Your task to perform on an android device: Open CNN.com Image 0: 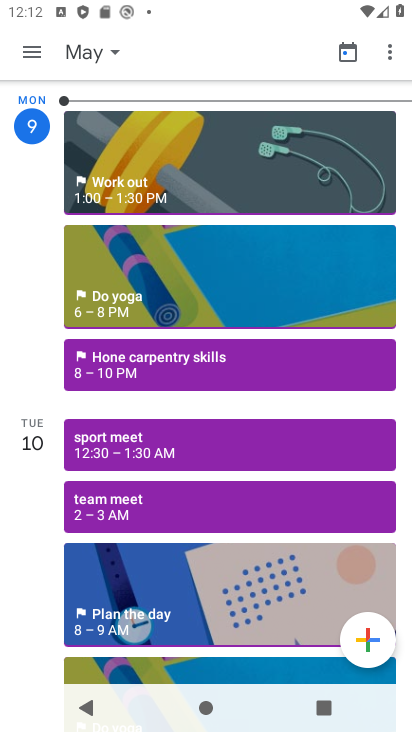
Step 0: press home button
Your task to perform on an android device: Open CNN.com Image 1: 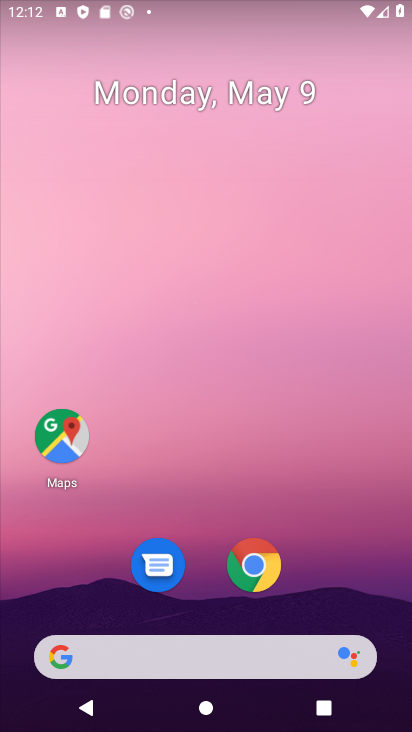
Step 1: drag from (241, 627) to (223, 173)
Your task to perform on an android device: Open CNN.com Image 2: 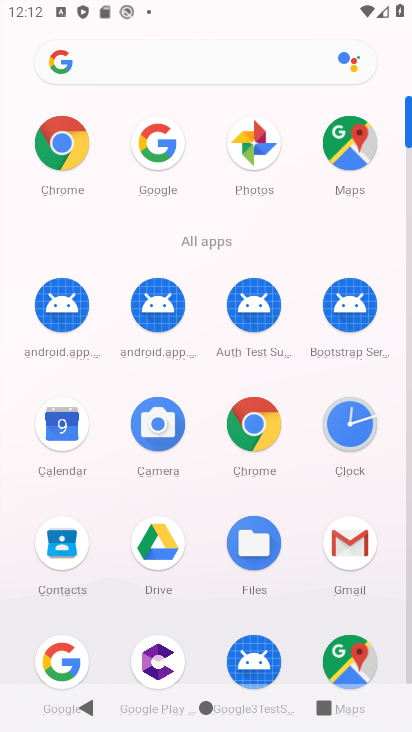
Step 2: click (258, 433)
Your task to perform on an android device: Open CNN.com Image 3: 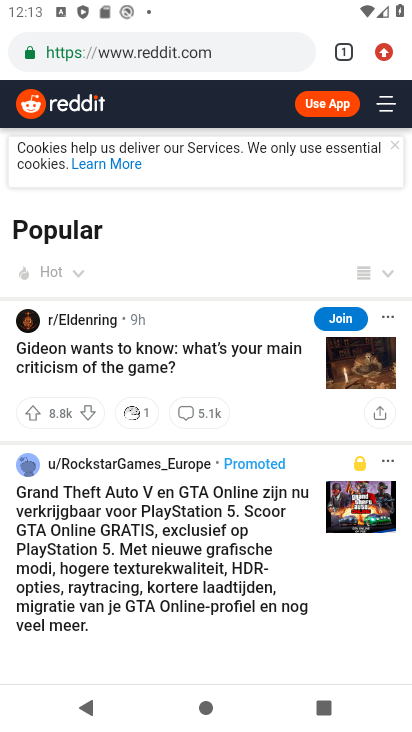
Step 3: click (216, 60)
Your task to perform on an android device: Open CNN.com Image 4: 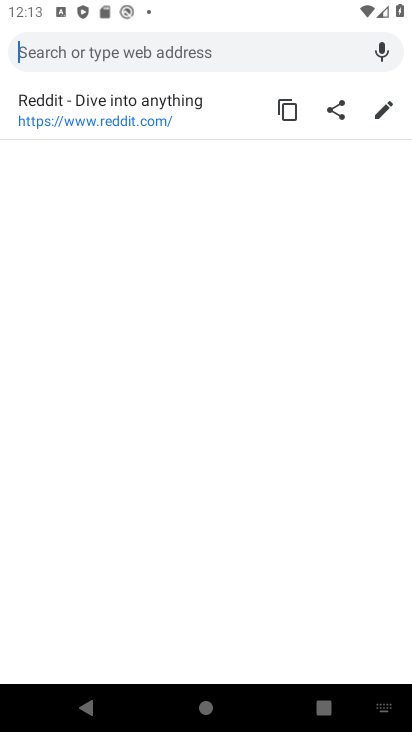
Step 4: type "cnn.com"
Your task to perform on an android device: Open CNN.com Image 5: 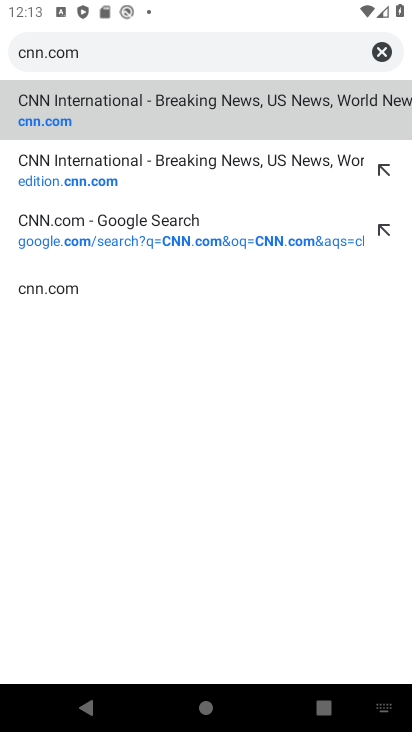
Step 5: click (212, 116)
Your task to perform on an android device: Open CNN.com Image 6: 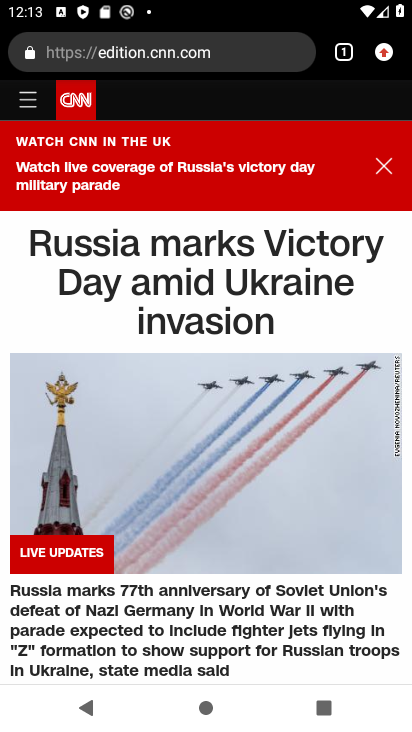
Step 6: task complete